Your task to perform on an android device: delete browsing data in the chrome app Image 0: 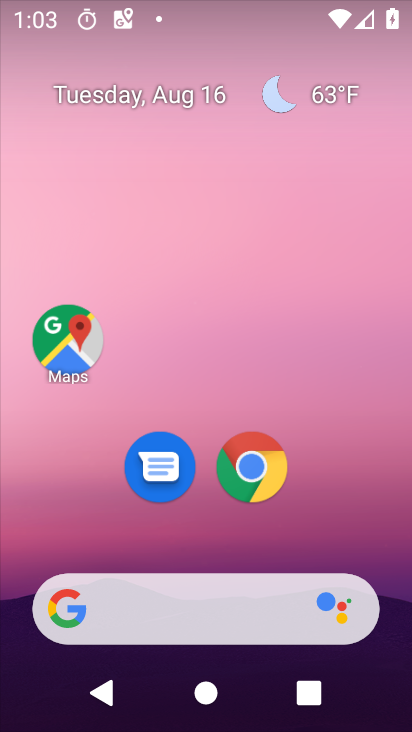
Step 0: press home button
Your task to perform on an android device: delete browsing data in the chrome app Image 1: 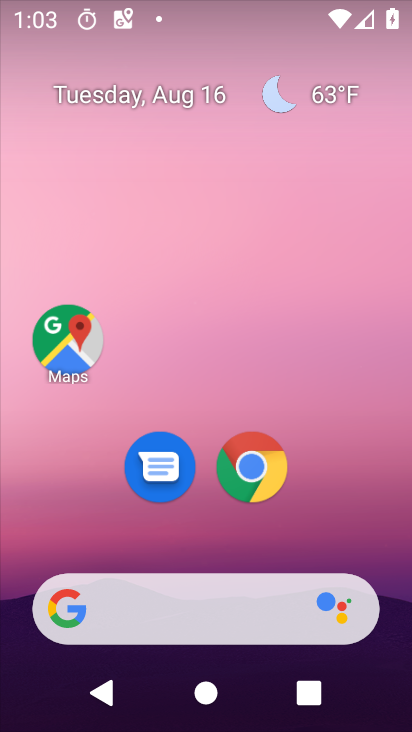
Step 1: drag from (331, 535) to (368, 116)
Your task to perform on an android device: delete browsing data in the chrome app Image 2: 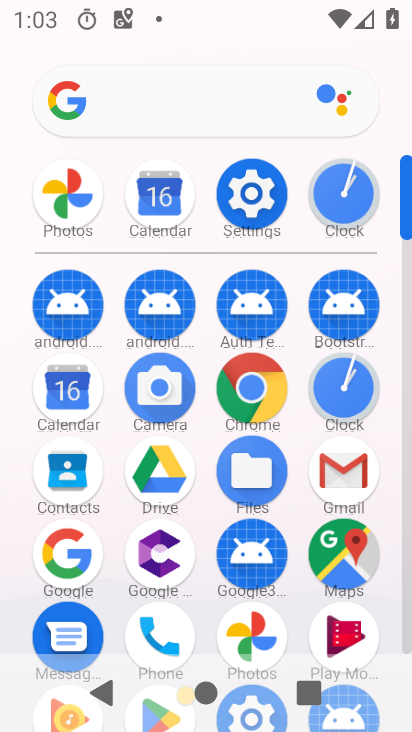
Step 2: click (243, 382)
Your task to perform on an android device: delete browsing data in the chrome app Image 3: 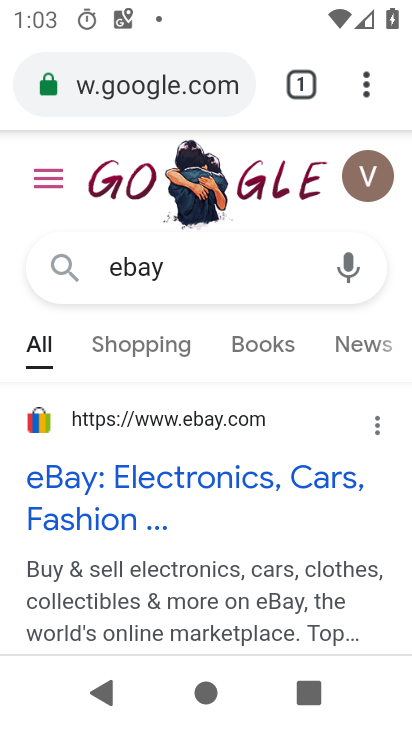
Step 3: click (366, 93)
Your task to perform on an android device: delete browsing data in the chrome app Image 4: 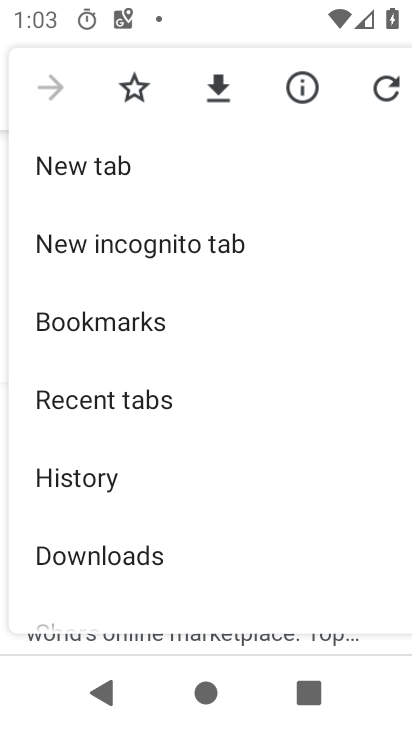
Step 4: drag from (293, 368) to (308, 292)
Your task to perform on an android device: delete browsing data in the chrome app Image 5: 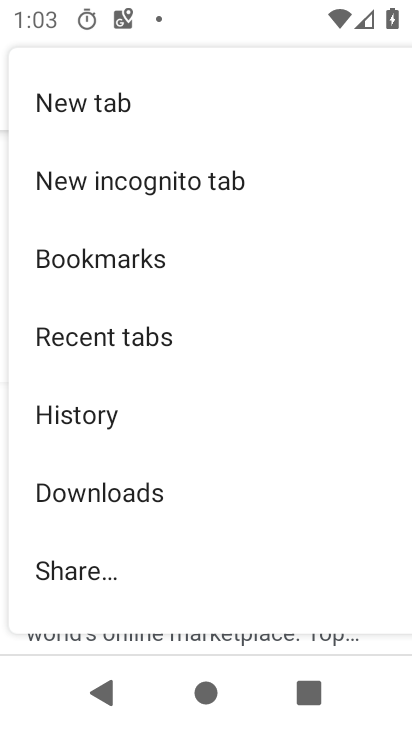
Step 5: drag from (278, 464) to (302, 335)
Your task to perform on an android device: delete browsing data in the chrome app Image 6: 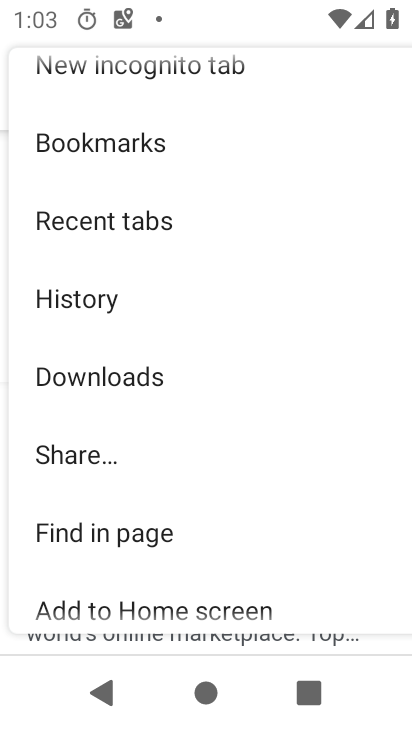
Step 6: drag from (316, 483) to (336, 357)
Your task to perform on an android device: delete browsing data in the chrome app Image 7: 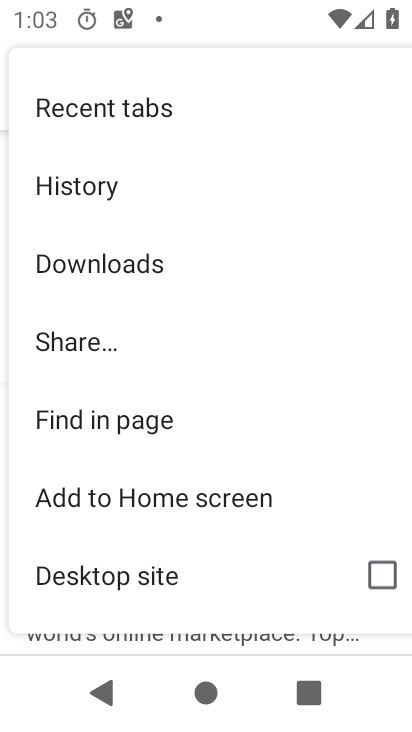
Step 7: drag from (308, 540) to (316, 409)
Your task to perform on an android device: delete browsing data in the chrome app Image 8: 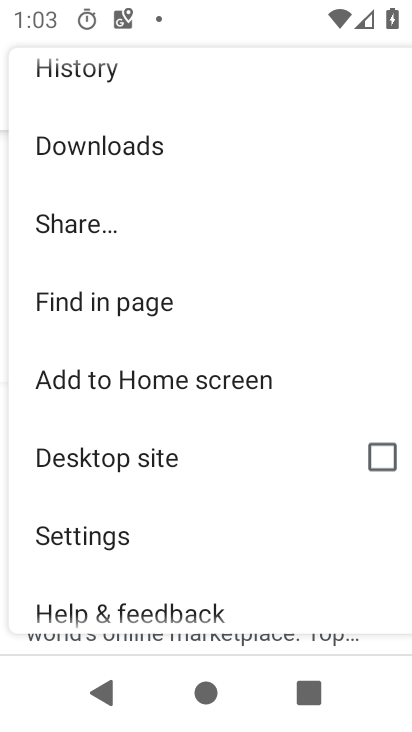
Step 8: click (211, 550)
Your task to perform on an android device: delete browsing data in the chrome app Image 9: 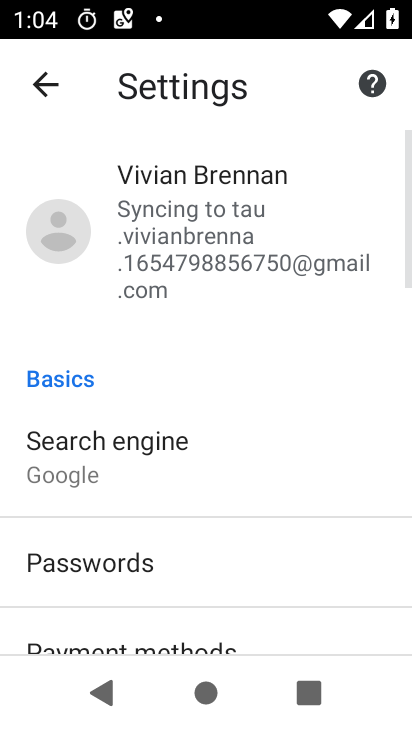
Step 9: drag from (325, 522) to (339, 426)
Your task to perform on an android device: delete browsing data in the chrome app Image 10: 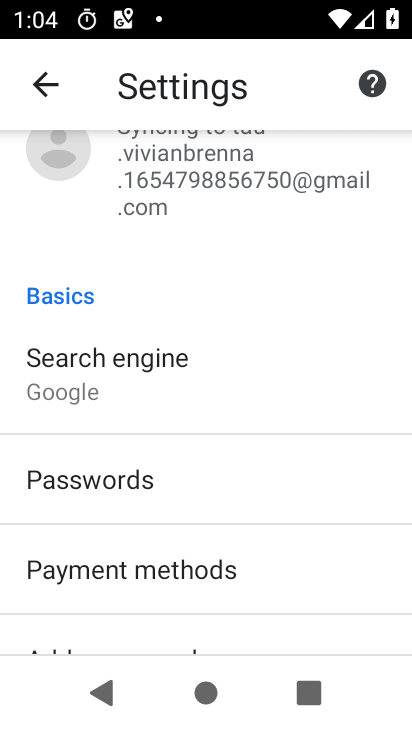
Step 10: drag from (321, 567) to (326, 417)
Your task to perform on an android device: delete browsing data in the chrome app Image 11: 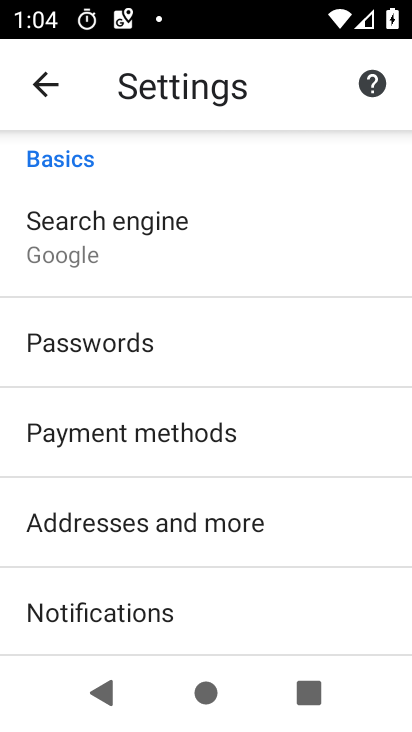
Step 11: drag from (318, 531) to (332, 405)
Your task to perform on an android device: delete browsing data in the chrome app Image 12: 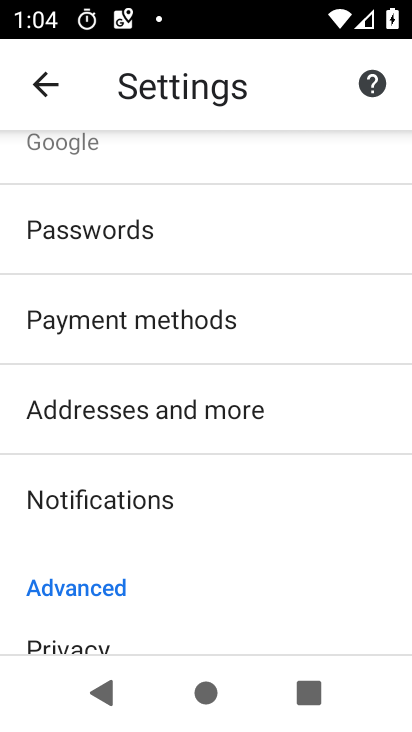
Step 12: drag from (348, 579) to (350, 461)
Your task to perform on an android device: delete browsing data in the chrome app Image 13: 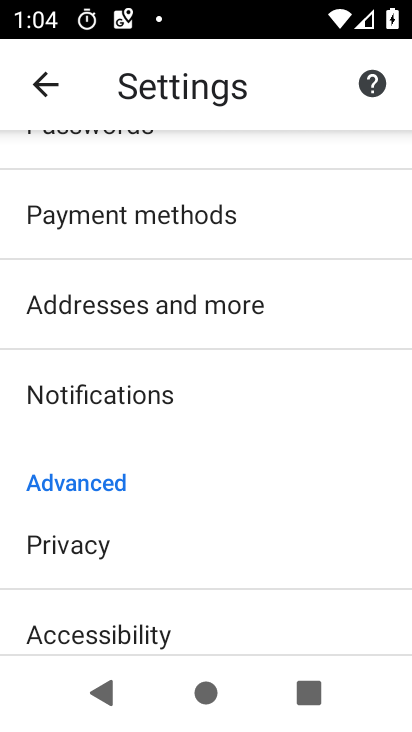
Step 13: drag from (317, 569) to (329, 446)
Your task to perform on an android device: delete browsing data in the chrome app Image 14: 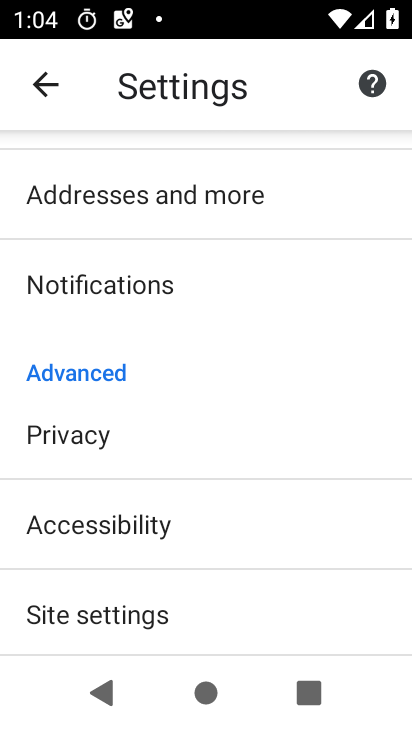
Step 14: drag from (333, 541) to (335, 473)
Your task to perform on an android device: delete browsing data in the chrome app Image 15: 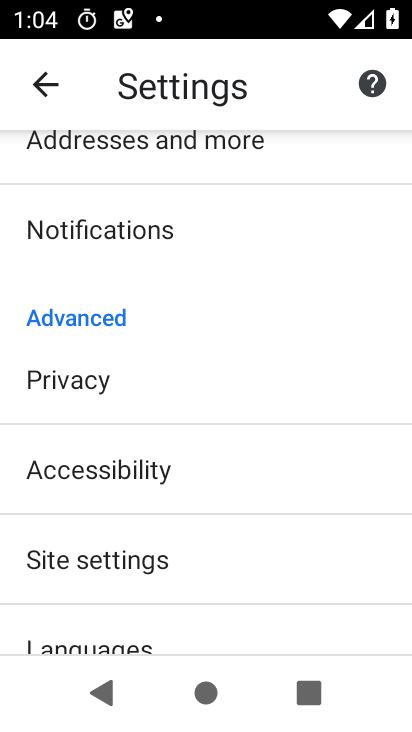
Step 15: drag from (338, 595) to (338, 489)
Your task to perform on an android device: delete browsing data in the chrome app Image 16: 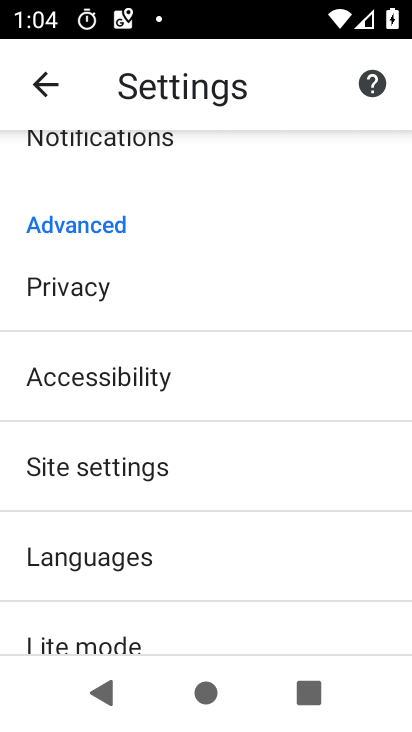
Step 16: drag from (331, 570) to (351, 424)
Your task to perform on an android device: delete browsing data in the chrome app Image 17: 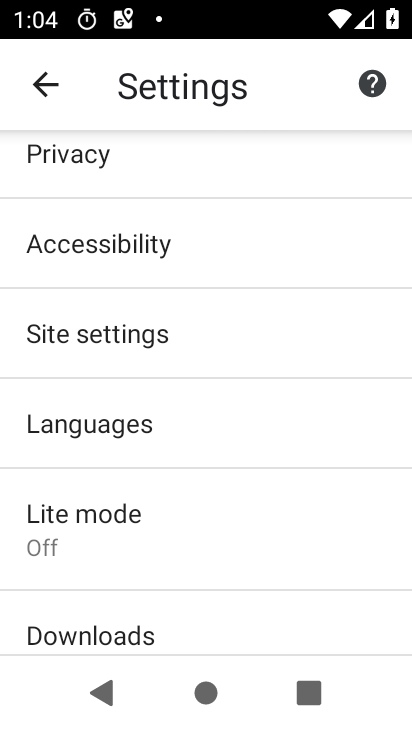
Step 17: click (263, 168)
Your task to perform on an android device: delete browsing data in the chrome app Image 18: 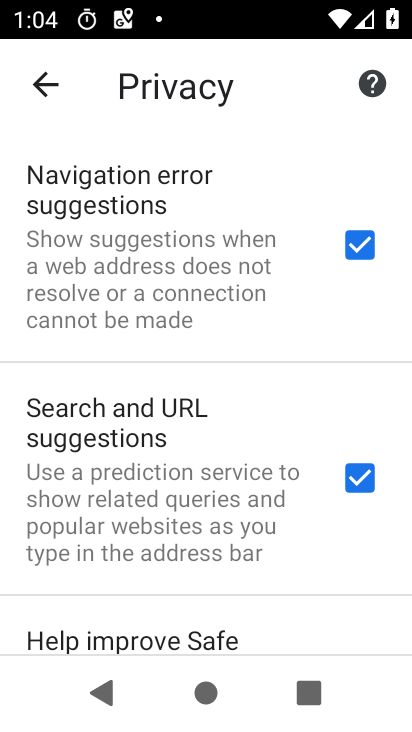
Step 18: drag from (277, 484) to (290, 322)
Your task to perform on an android device: delete browsing data in the chrome app Image 19: 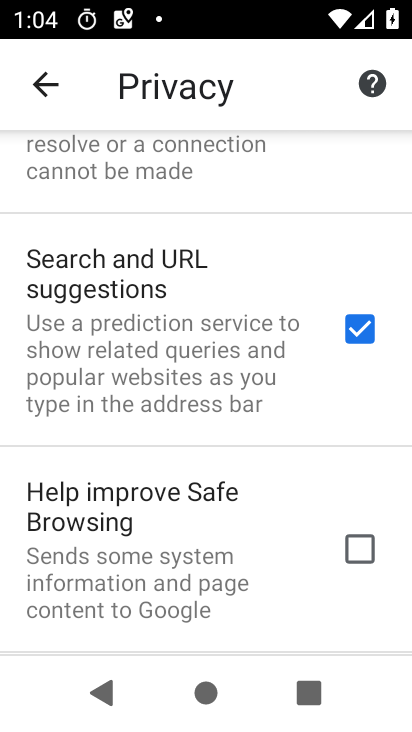
Step 19: drag from (277, 531) to (298, 368)
Your task to perform on an android device: delete browsing data in the chrome app Image 20: 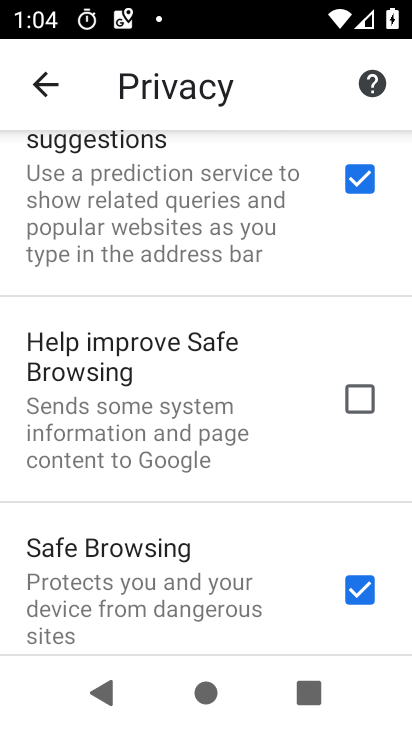
Step 20: drag from (265, 560) to (276, 380)
Your task to perform on an android device: delete browsing data in the chrome app Image 21: 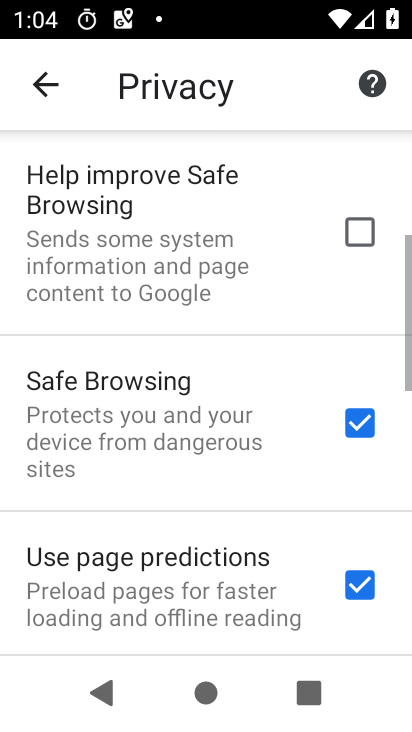
Step 21: drag from (274, 589) to (291, 399)
Your task to perform on an android device: delete browsing data in the chrome app Image 22: 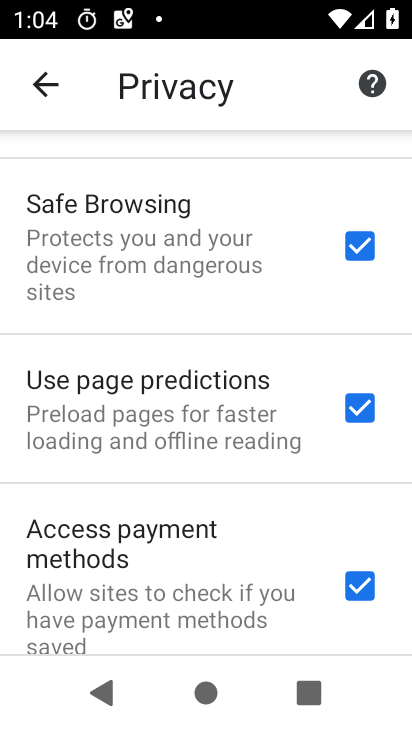
Step 22: drag from (255, 576) to (286, 414)
Your task to perform on an android device: delete browsing data in the chrome app Image 23: 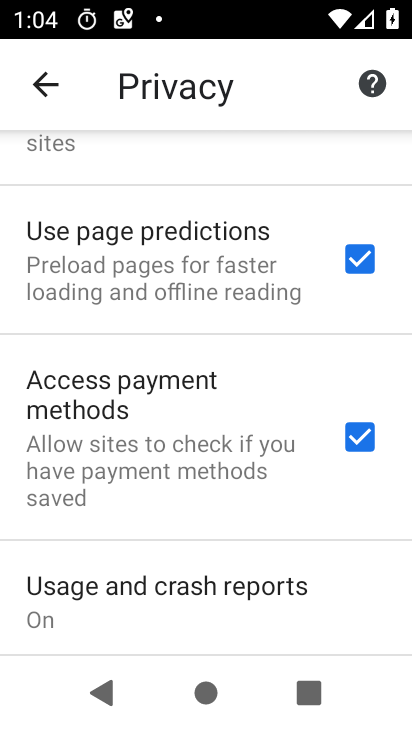
Step 23: drag from (252, 626) to (279, 421)
Your task to perform on an android device: delete browsing data in the chrome app Image 24: 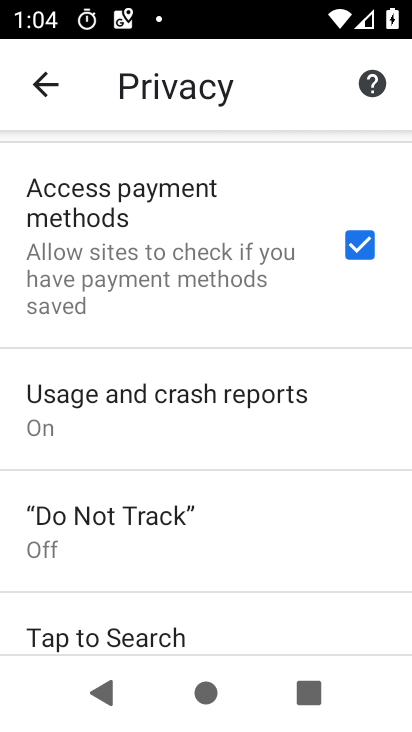
Step 24: drag from (241, 553) to (268, 360)
Your task to perform on an android device: delete browsing data in the chrome app Image 25: 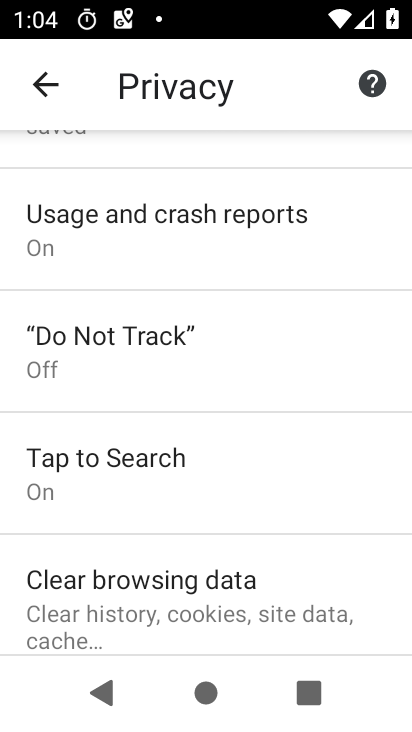
Step 25: drag from (257, 577) to (273, 314)
Your task to perform on an android device: delete browsing data in the chrome app Image 26: 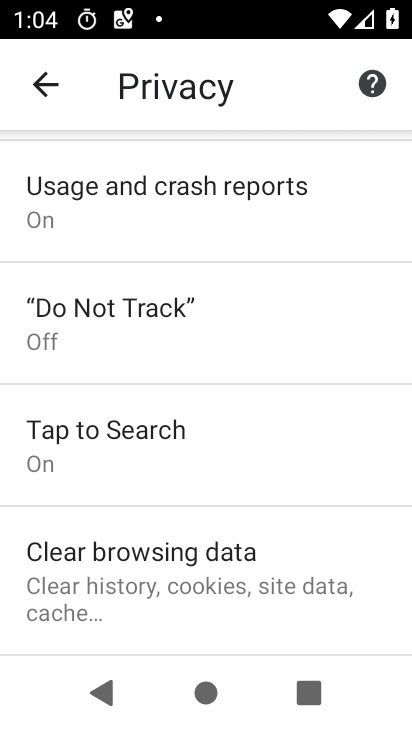
Step 26: click (232, 564)
Your task to perform on an android device: delete browsing data in the chrome app Image 27: 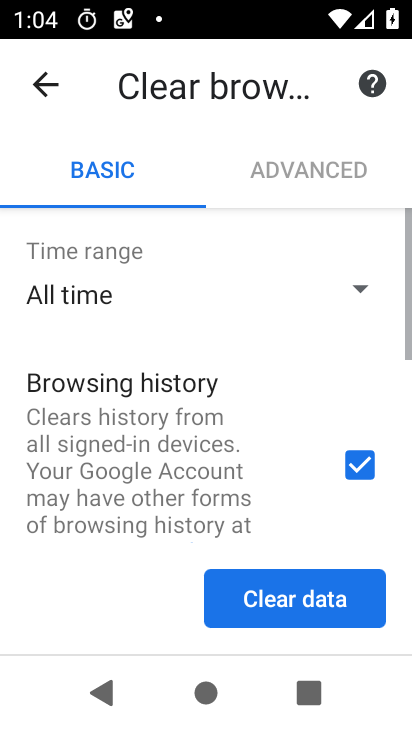
Step 27: click (272, 605)
Your task to perform on an android device: delete browsing data in the chrome app Image 28: 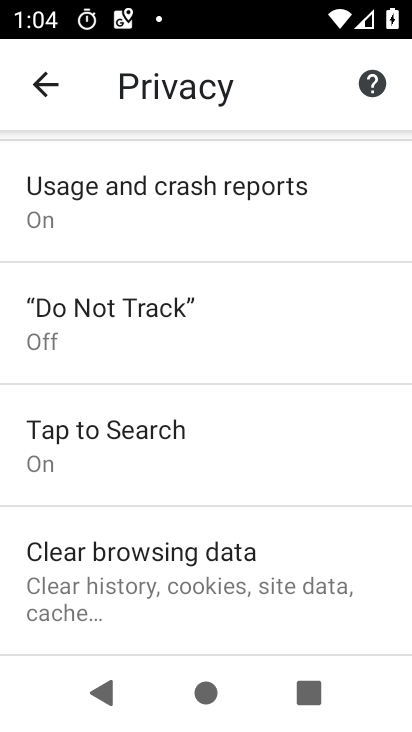
Step 28: task complete